Your task to perform on an android device: set the stopwatch Image 0: 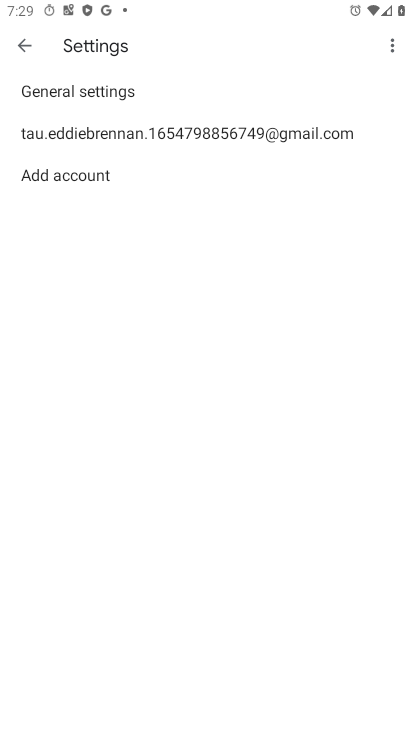
Step 0: press home button
Your task to perform on an android device: set the stopwatch Image 1: 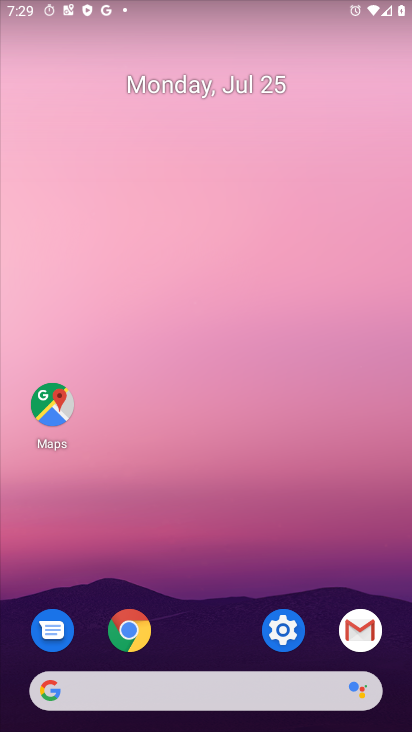
Step 1: drag from (258, 716) to (326, 120)
Your task to perform on an android device: set the stopwatch Image 2: 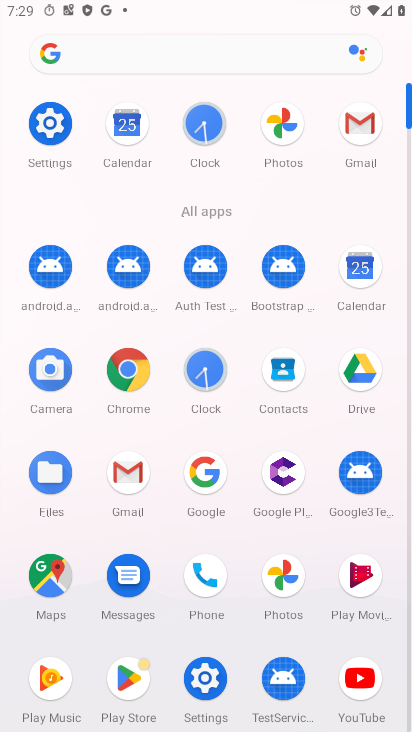
Step 2: click (214, 364)
Your task to perform on an android device: set the stopwatch Image 3: 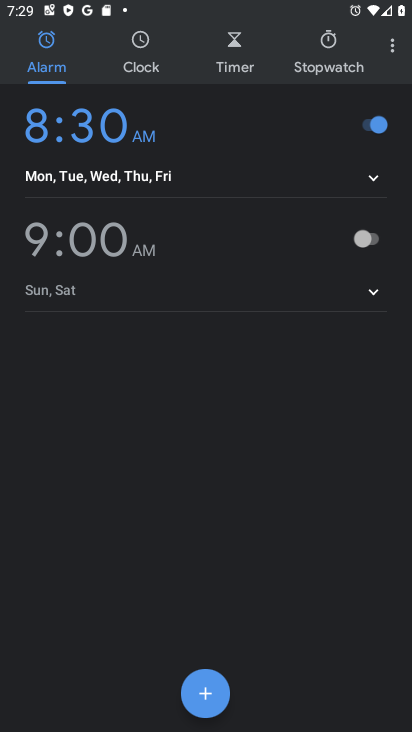
Step 3: click (326, 71)
Your task to perform on an android device: set the stopwatch Image 4: 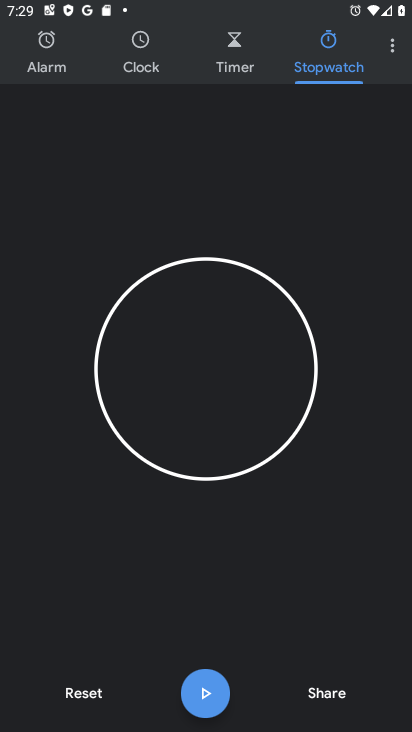
Step 4: click (191, 702)
Your task to perform on an android device: set the stopwatch Image 5: 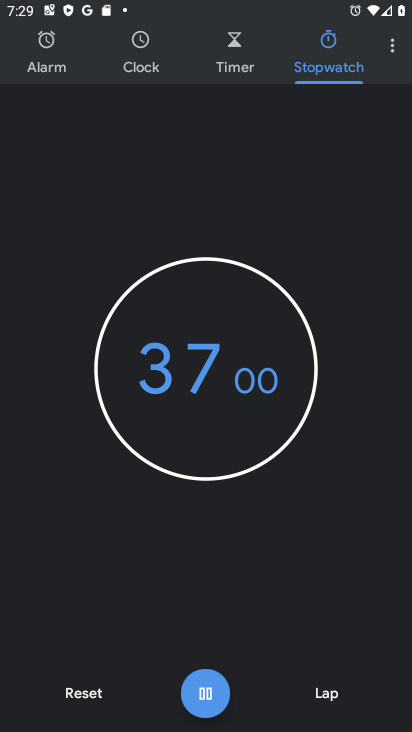
Step 5: click (205, 697)
Your task to perform on an android device: set the stopwatch Image 6: 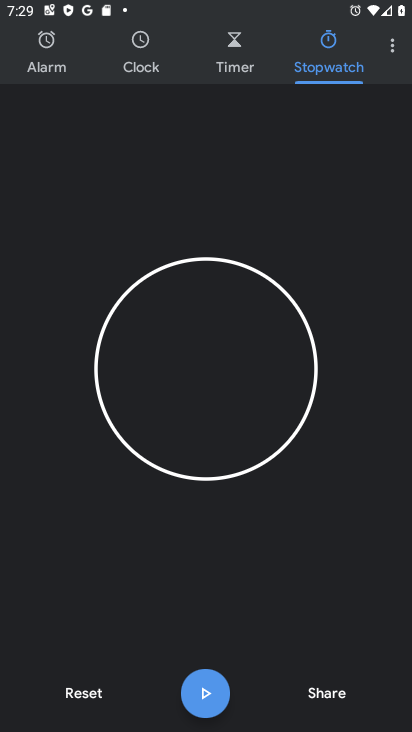
Step 6: task complete